Your task to perform on an android device: Open the calendar and show me this week's events? Image 0: 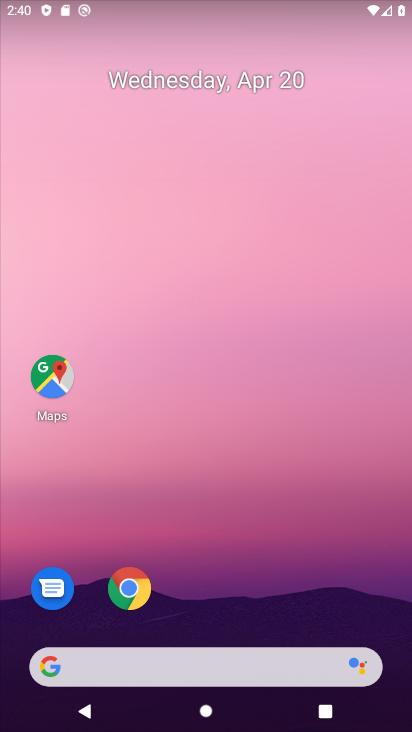
Step 0: drag from (301, 627) to (400, 119)
Your task to perform on an android device: Open the calendar and show me this week's events? Image 1: 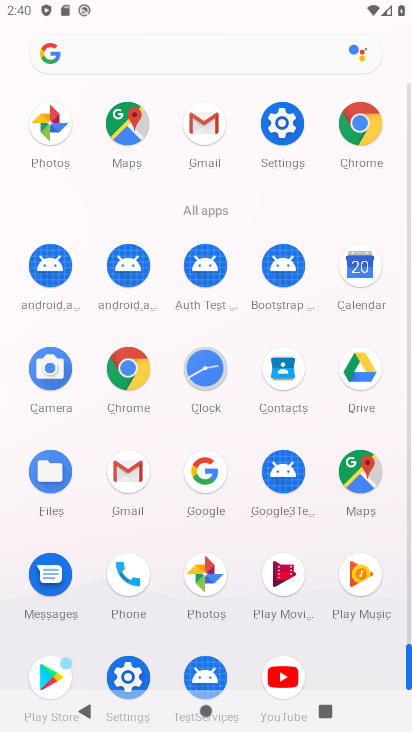
Step 1: click (352, 271)
Your task to perform on an android device: Open the calendar and show me this week's events? Image 2: 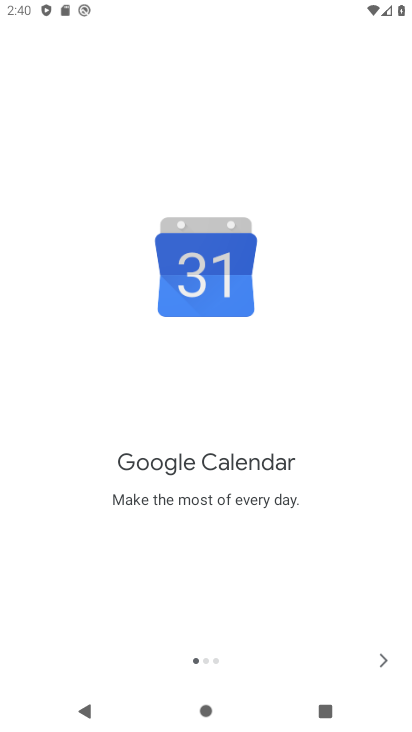
Step 2: click (383, 653)
Your task to perform on an android device: Open the calendar and show me this week's events? Image 3: 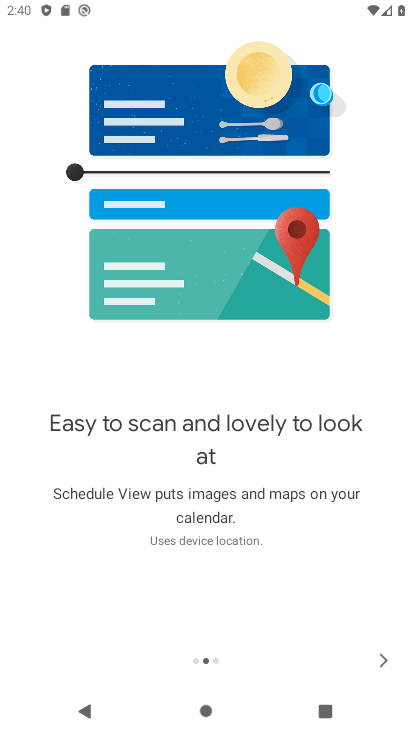
Step 3: click (381, 661)
Your task to perform on an android device: Open the calendar and show me this week's events? Image 4: 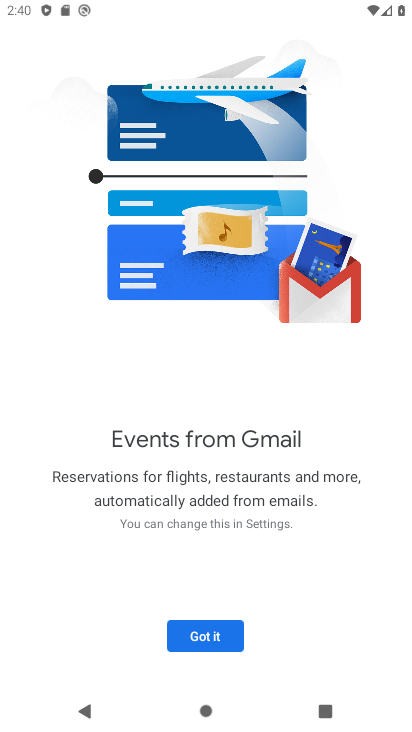
Step 4: click (228, 642)
Your task to perform on an android device: Open the calendar and show me this week's events? Image 5: 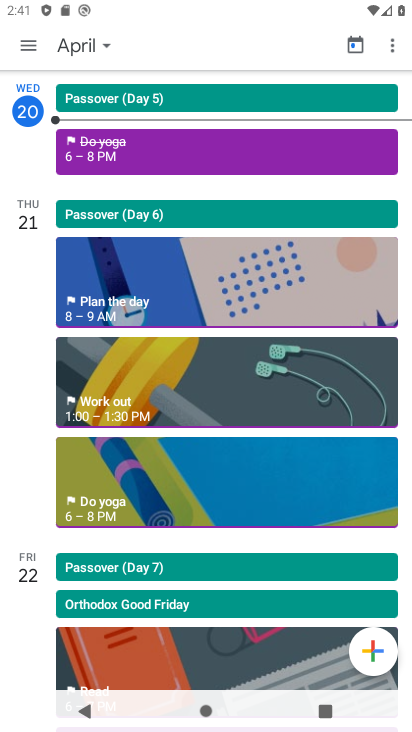
Step 5: click (99, 50)
Your task to perform on an android device: Open the calendar and show me this week's events? Image 6: 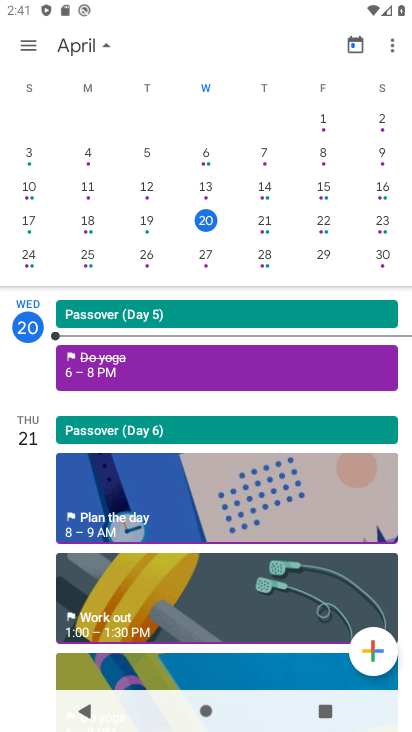
Step 6: click (264, 251)
Your task to perform on an android device: Open the calendar and show me this week's events? Image 7: 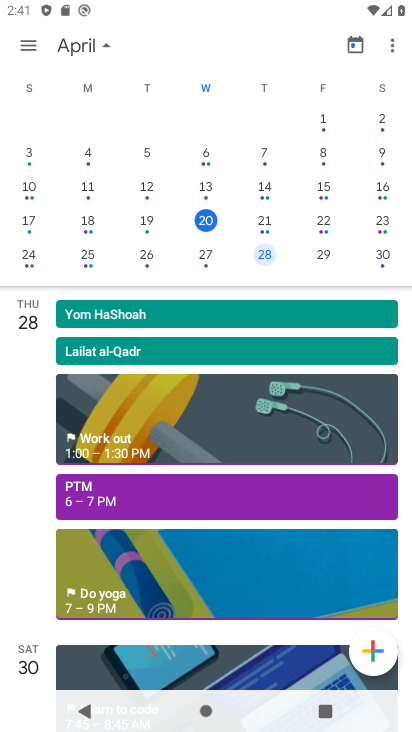
Step 7: click (35, 50)
Your task to perform on an android device: Open the calendar and show me this week's events? Image 8: 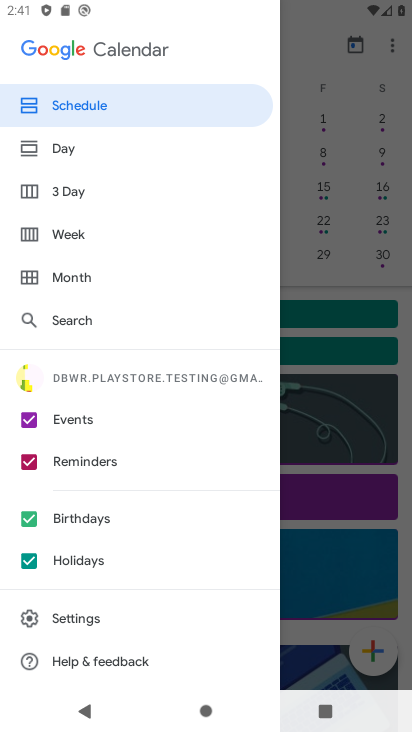
Step 8: click (99, 426)
Your task to perform on an android device: Open the calendar and show me this week's events? Image 9: 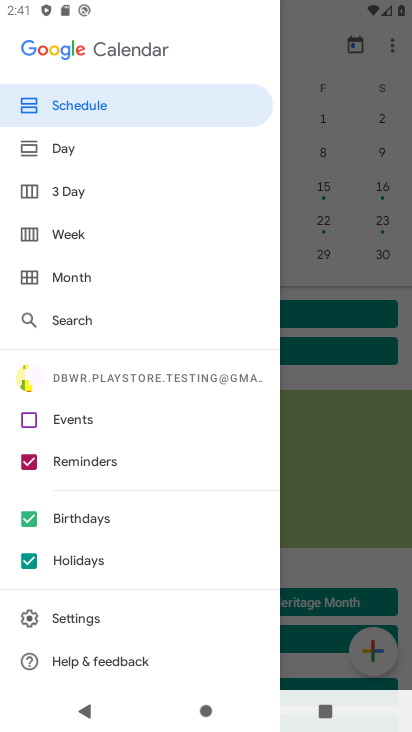
Step 9: click (99, 426)
Your task to perform on an android device: Open the calendar and show me this week's events? Image 10: 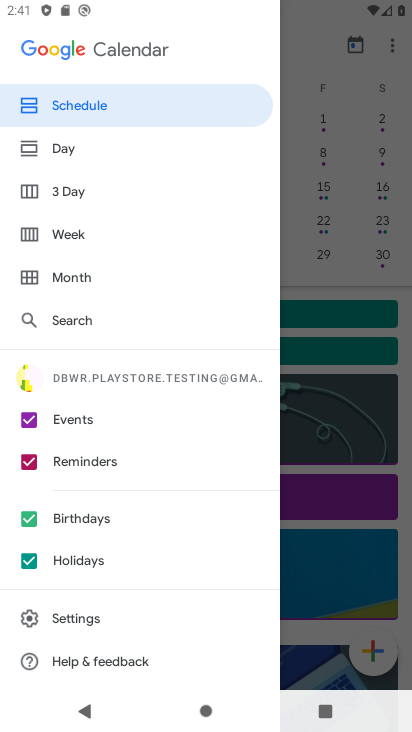
Step 10: click (320, 280)
Your task to perform on an android device: Open the calendar and show me this week's events? Image 11: 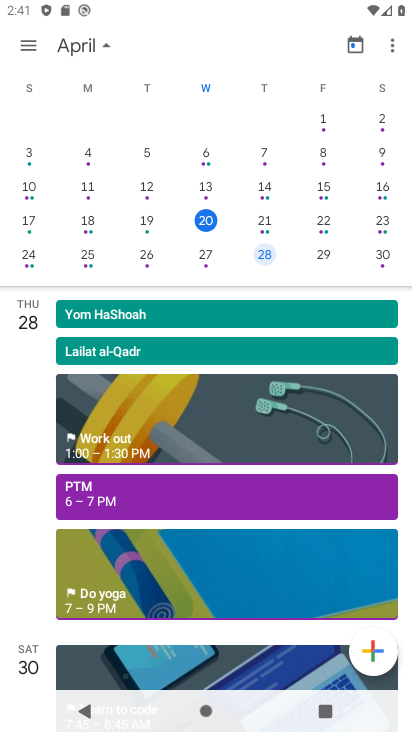
Step 11: click (270, 257)
Your task to perform on an android device: Open the calendar and show me this week's events? Image 12: 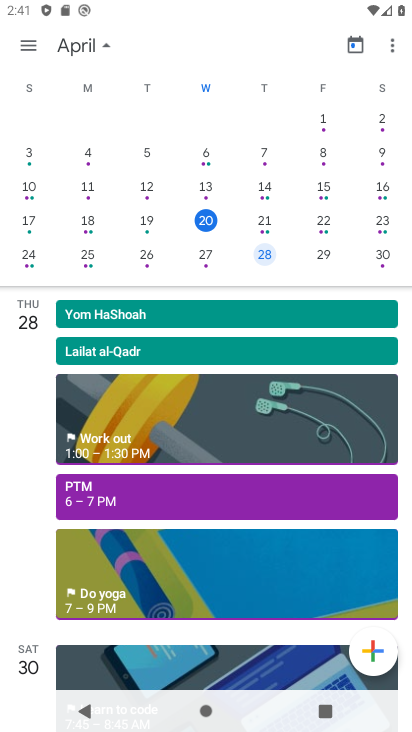
Step 12: click (26, 45)
Your task to perform on an android device: Open the calendar and show me this week's events? Image 13: 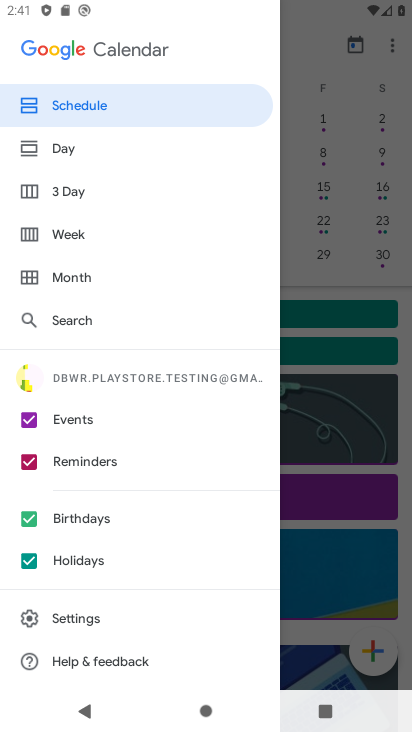
Step 13: click (80, 238)
Your task to perform on an android device: Open the calendar and show me this week's events? Image 14: 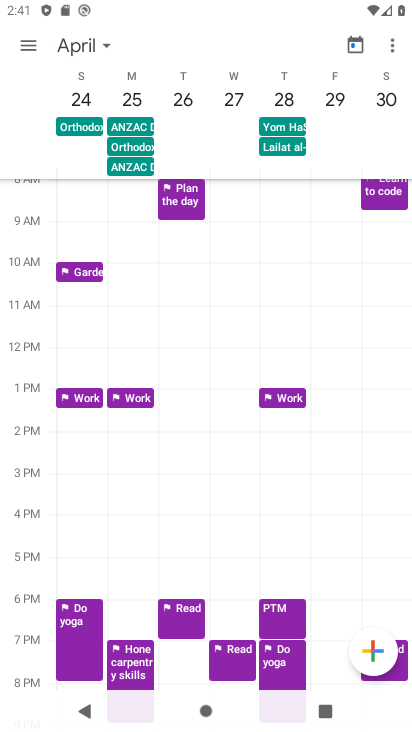
Step 14: task complete